Your task to perform on an android device: open wifi settings Image 0: 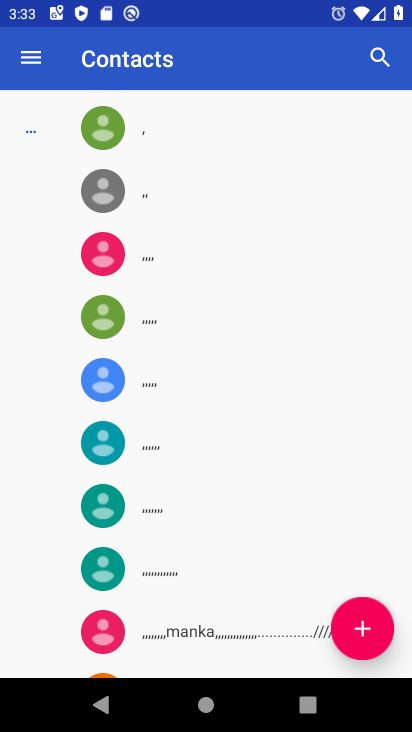
Step 0: press home button
Your task to perform on an android device: open wifi settings Image 1: 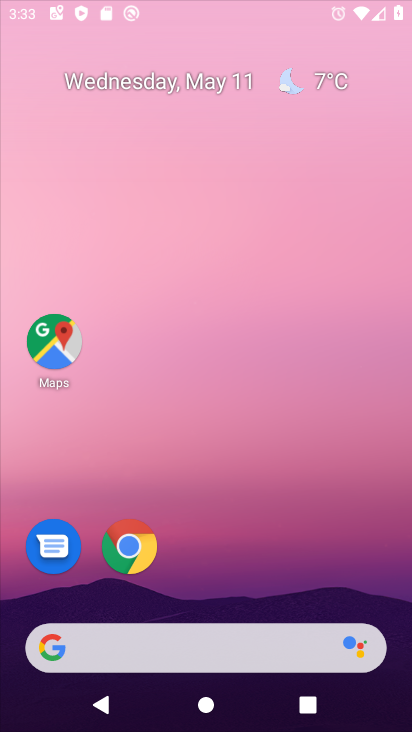
Step 1: drag from (247, 656) to (258, 36)
Your task to perform on an android device: open wifi settings Image 2: 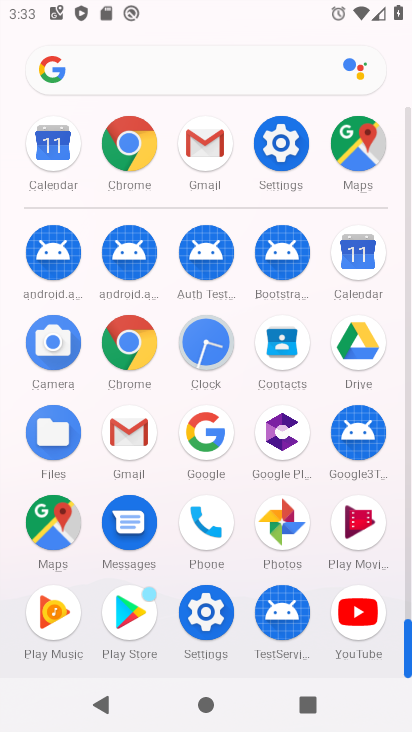
Step 2: click (282, 157)
Your task to perform on an android device: open wifi settings Image 3: 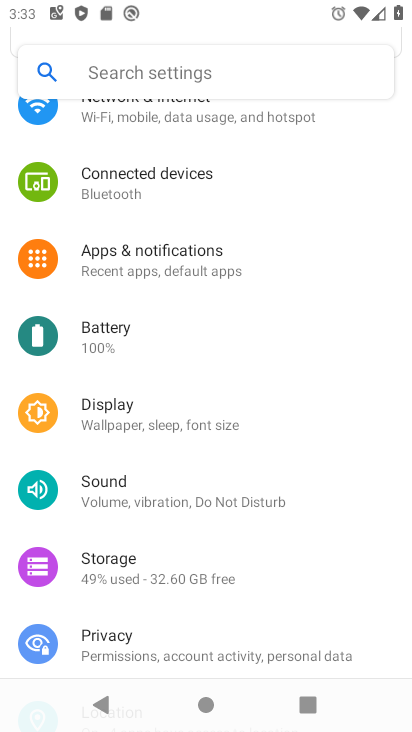
Step 3: drag from (218, 175) to (254, 653)
Your task to perform on an android device: open wifi settings Image 4: 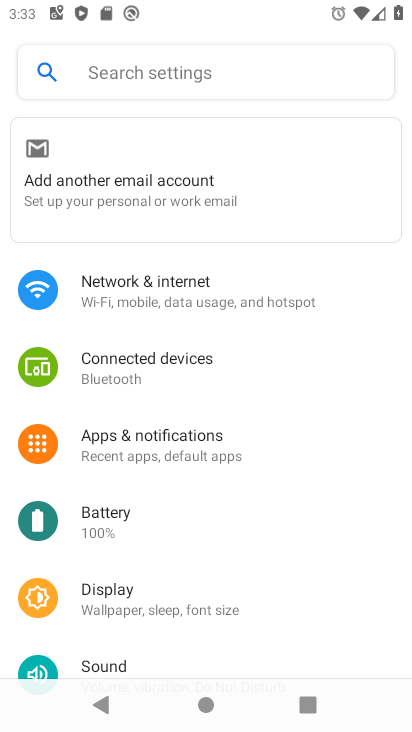
Step 4: click (249, 289)
Your task to perform on an android device: open wifi settings Image 5: 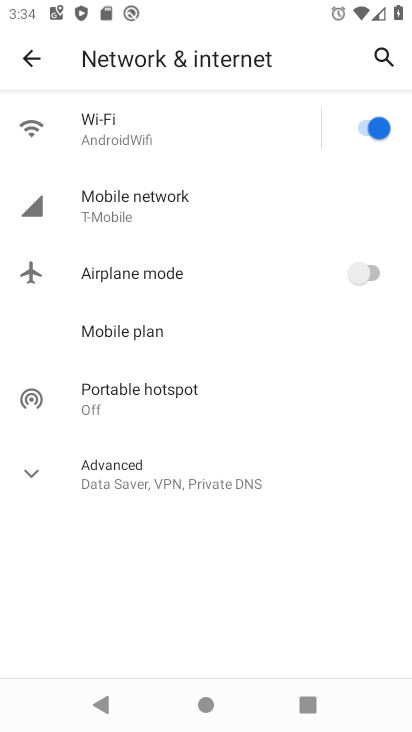
Step 5: click (213, 117)
Your task to perform on an android device: open wifi settings Image 6: 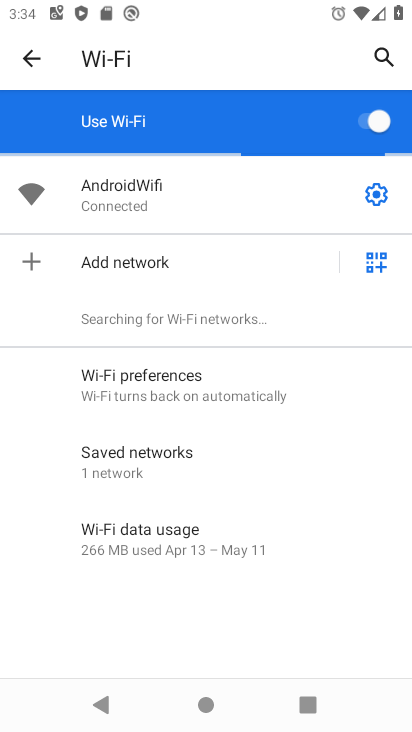
Step 6: task complete